Your task to perform on an android device: Go to Maps Image 0: 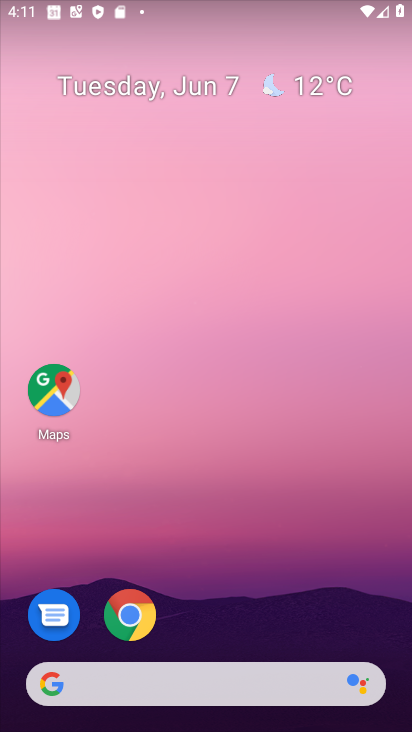
Step 0: click (54, 376)
Your task to perform on an android device: Go to Maps Image 1: 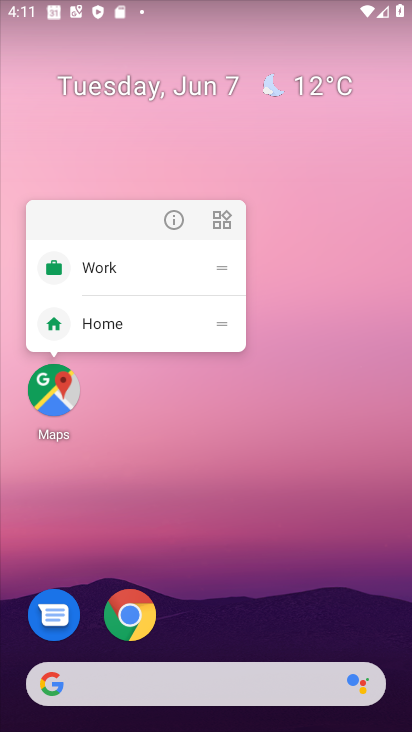
Step 1: click (56, 399)
Your task to perform on an android device: Go to Maps Image 2: 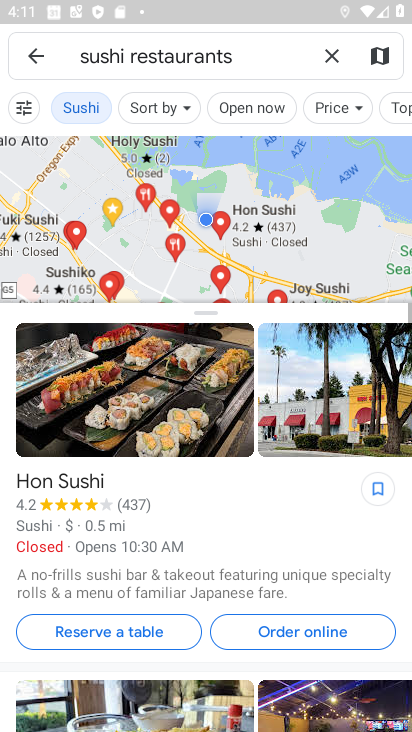
Step 2: task complete